Your task to perform on an android device: delete the emails in spam in the gmail app Image 0: 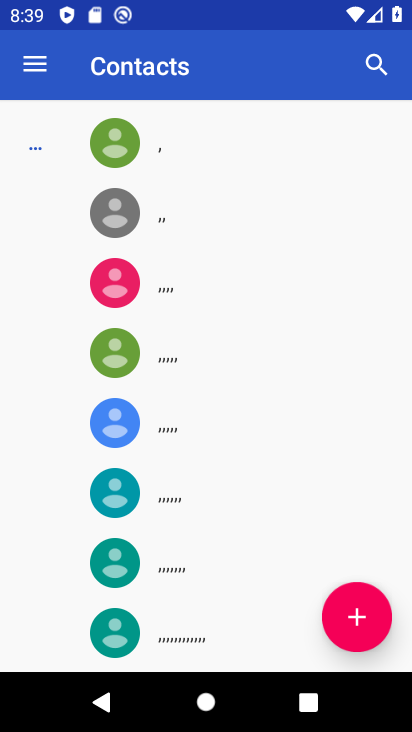
Step 0: press home button
Your task to perform on an android device: delete the emails in spam in the gmail app Image 1: 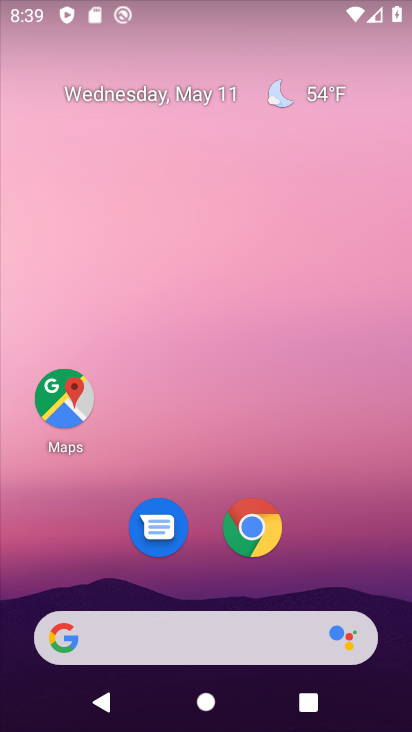
Step 1: drag from (298, 435) to (291, 86)
Your task to perform on an android device: delete the emails in spam in the gmail app Image 2: 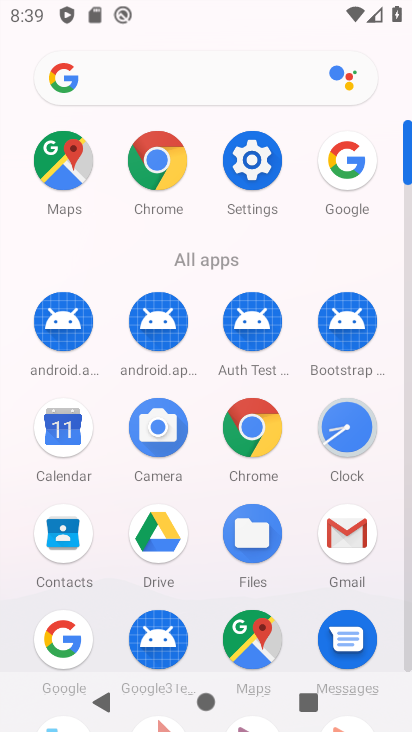
Step 2: click (352, 542)
Your task to perform on an android device: delete the emails in spam in the gmail app Image 3: 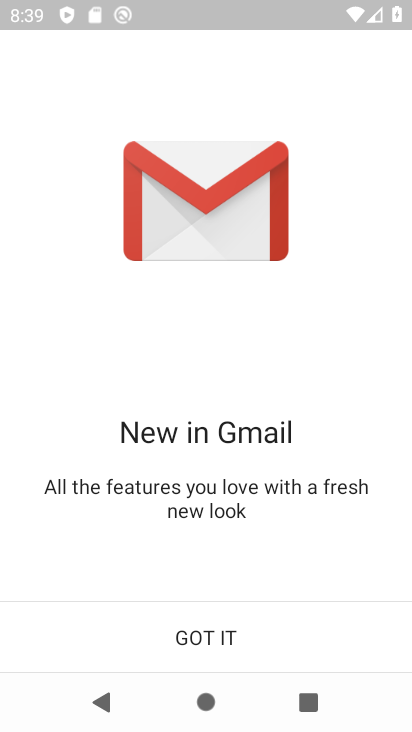
Step 3: click (182, 638)
Your task to perform on an android device: delete the emails in spam in the gmail app Image 4: 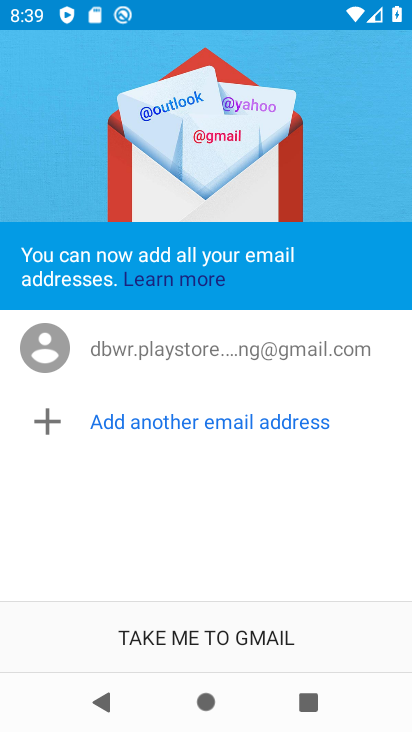
Step 4: click (182, 638)
Your task to perform on an android device: delete the emails in spam in the gmail app Image 5: 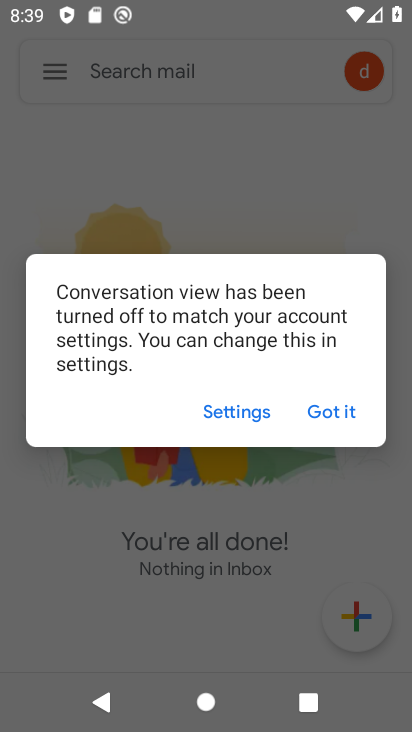
Step 5: click (333, 416)
Your task to perform on an android device: delete the emails in spam in the gmail app Image 6: 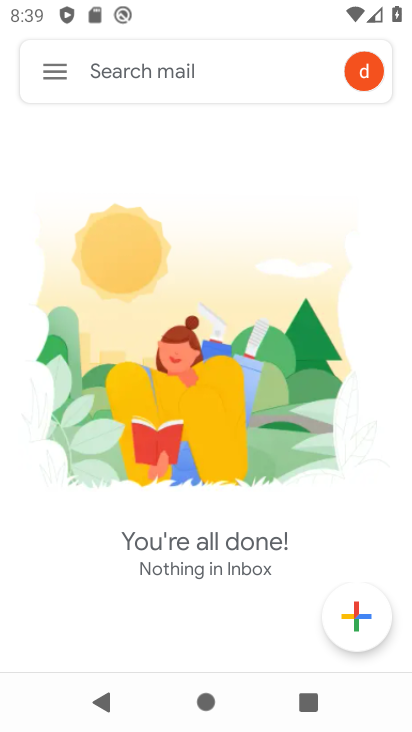
Step 6: click (60, 77)
Your task to perform on an android device: delete the emails in spam in the gmail app Image 7: 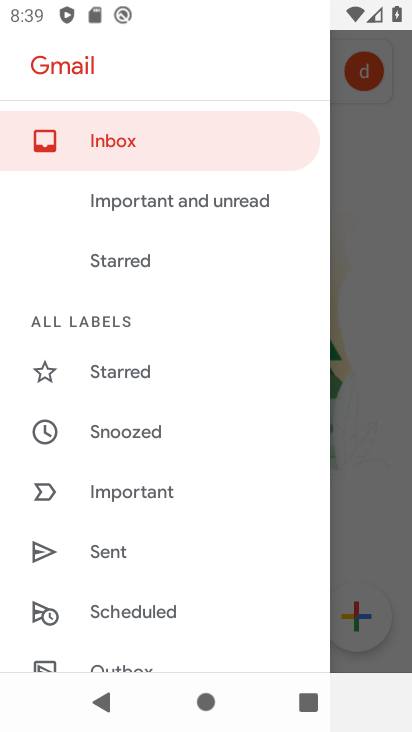
Step 7: drag from (168, 629) to (170, 304)
Your task to perform on an android device: delete the emails in spam in the gmail app Image 8: 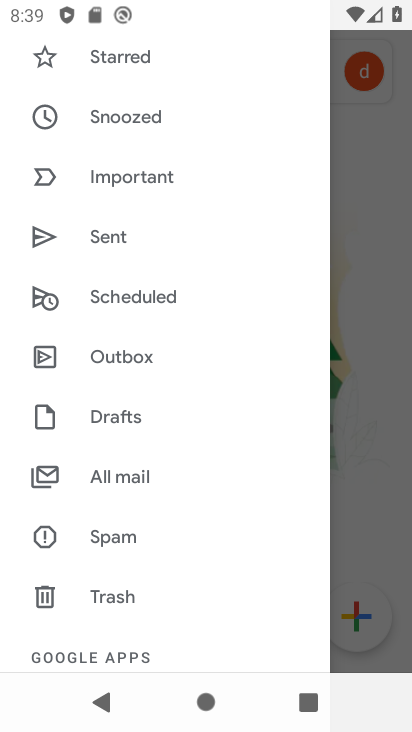
Step 8: click (114, 540)
Your task to perform on an android device: delete the emails in spam in the gmail app Image 9: 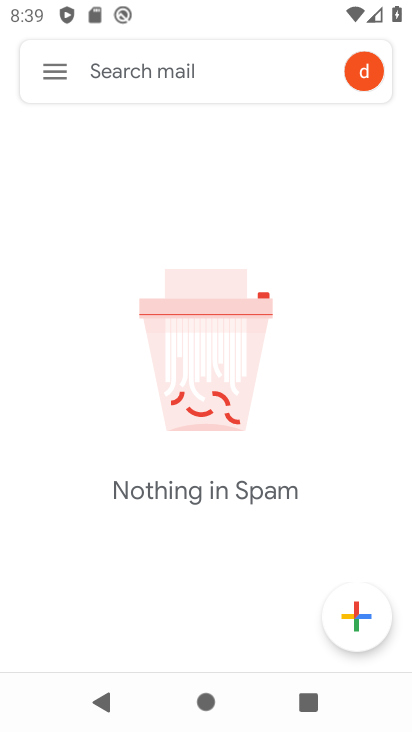
Step 9: task complete